Your task to perform on an android device: Go to Amazon Image 0: 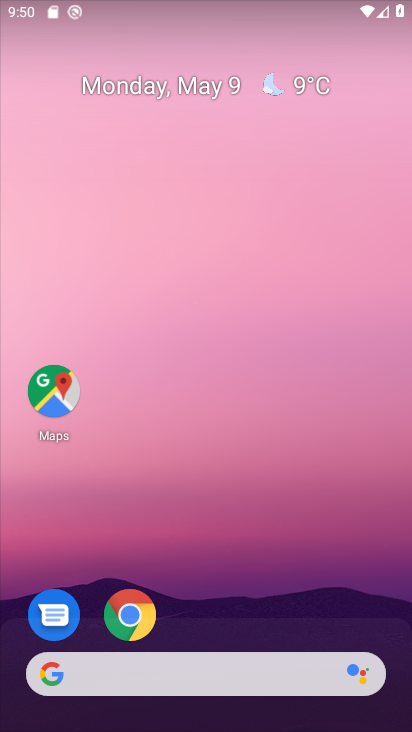
Step 0: click (138, 628)
Your task to perform on an android device: Go to Amazon Image 1: 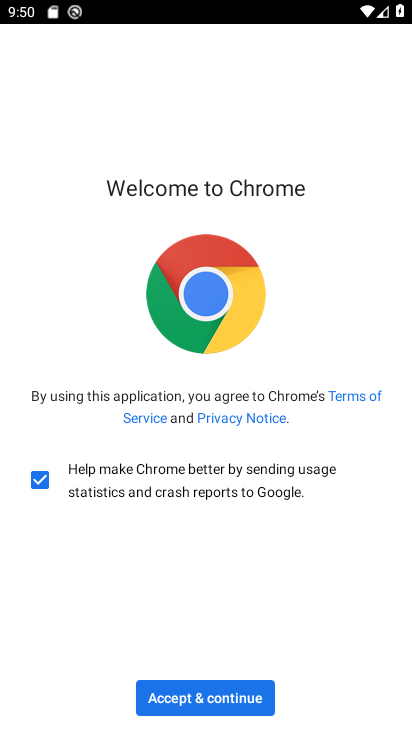
Step 1: click (190, 700)
Your task to perform on an android device: Go to Amazon Image 2: 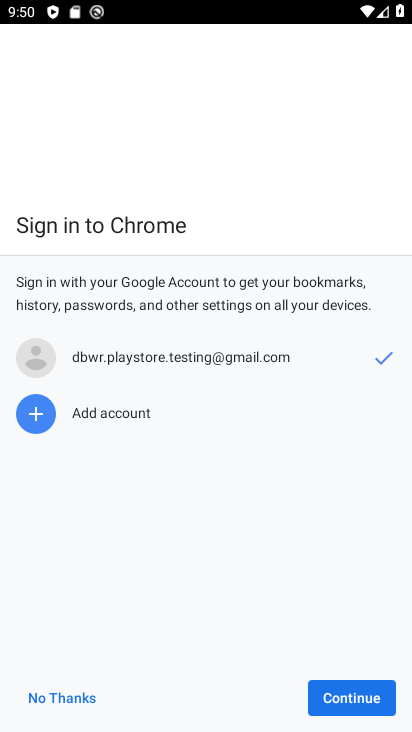
Step 2: click (337, 700)
Your task to perform on an android device: Go to Amazon Image 3: 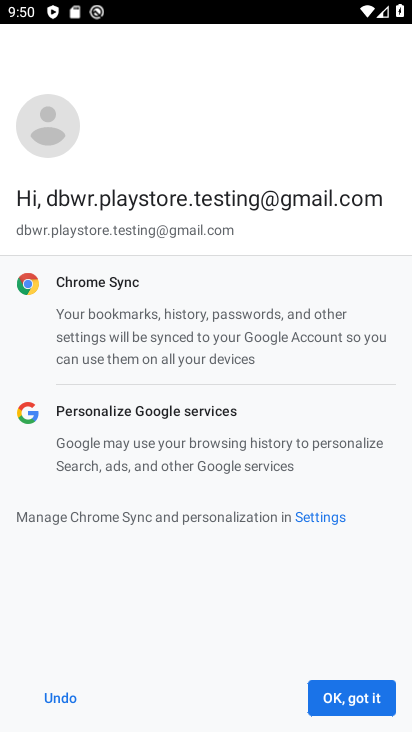
Step 3: click (364, 701)
Your task to perform on an android device: Go to Amazon Image 4: 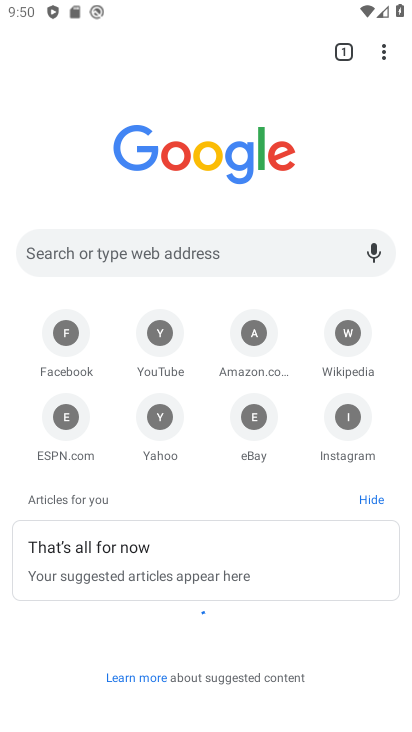
Step 4: click (172, 255)
Your task to perform on an android device: Go to Amazon Image 5: 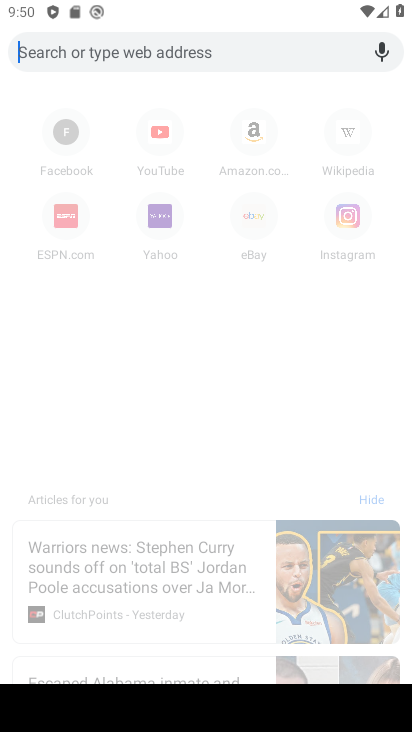
Step 5: type "Amazon"
Your task to perform on an android device: Go to Amazon Image 6: 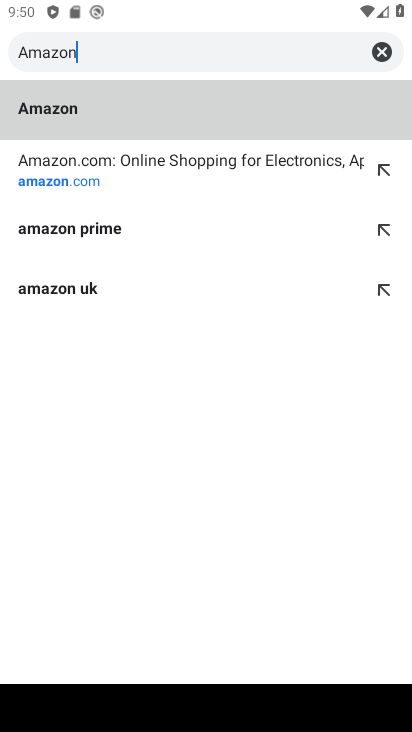
Step 6: click (91, 114)
Your task to perform on an android device: Go to Amazon Image 7: 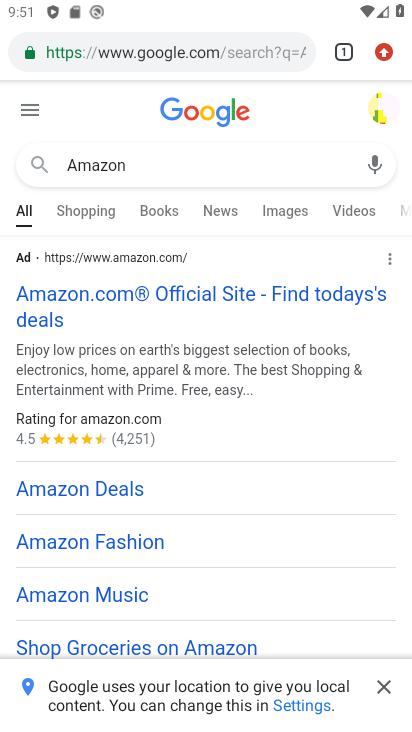
Step 7: click (52, 284)
Your task to perform on an android device: Go to Amazon Image 8: 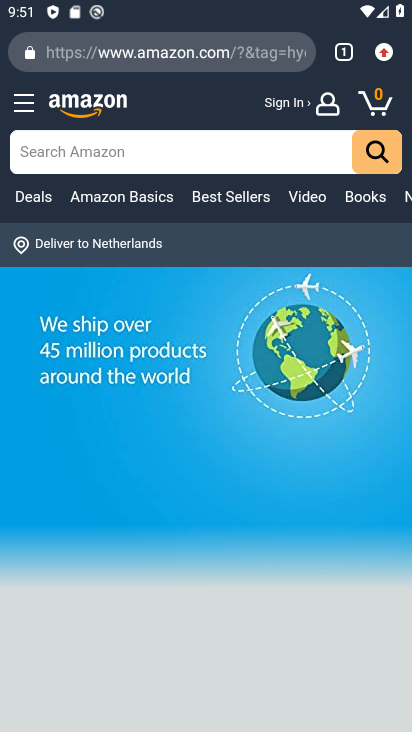
Step 8: task complete